Your task to perform on an android device: How do I get to the nearest electronics store? Image 0: 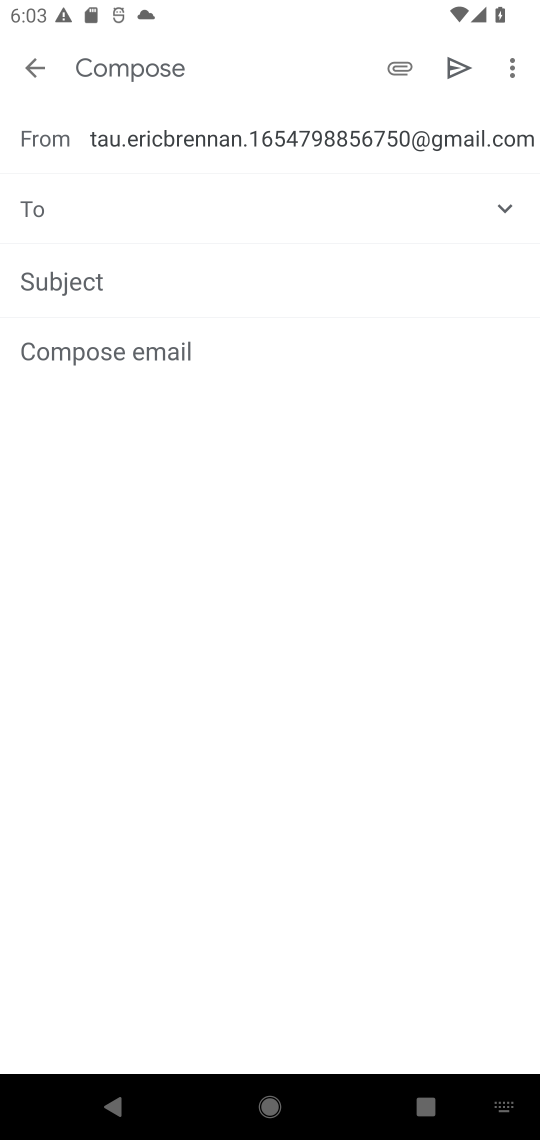
Step 0: press home button
Your task to perform on an android device: How do I get to the nearest electronics store? Image 1: 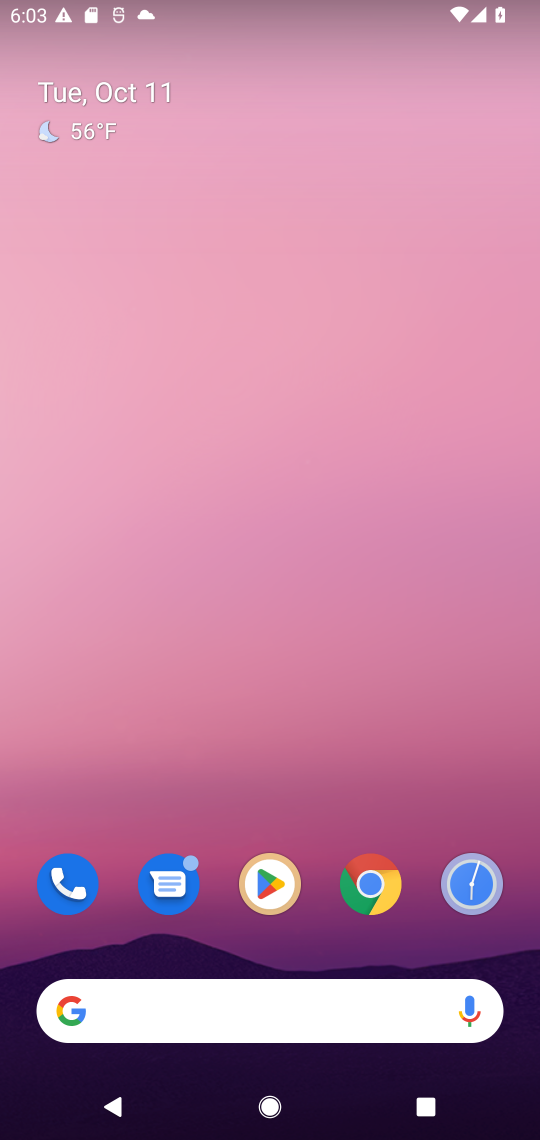
Step 1: drag from (344, 813) to (428, 215)
Your task to perform on an android device: How do I get to the nearest electronics store? Image 2: 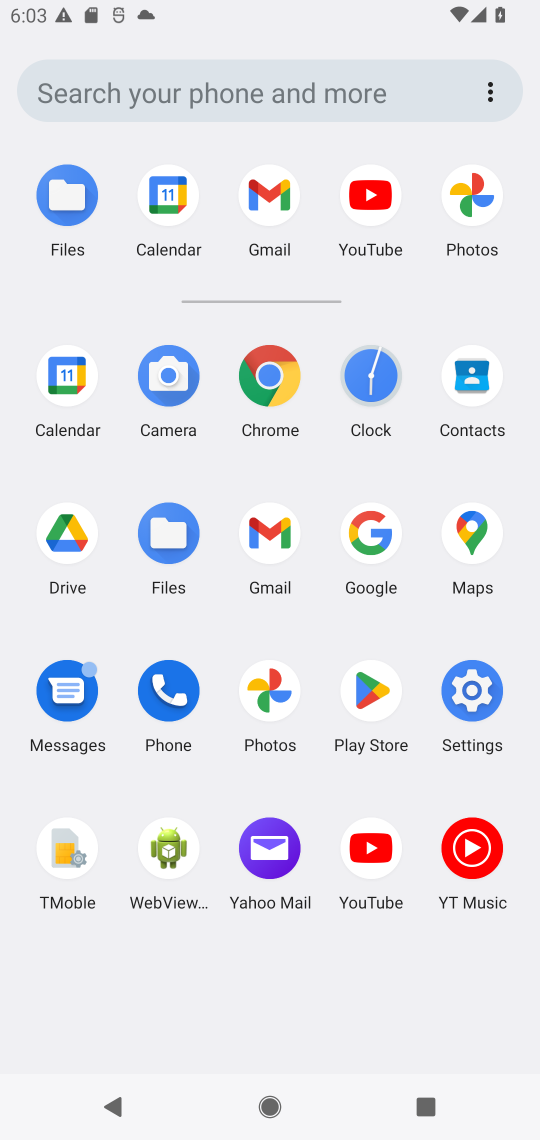
Step 2: click (272, 375)
Your task to perform on an android device: How do I get to the nearest electronics store? Image 3: 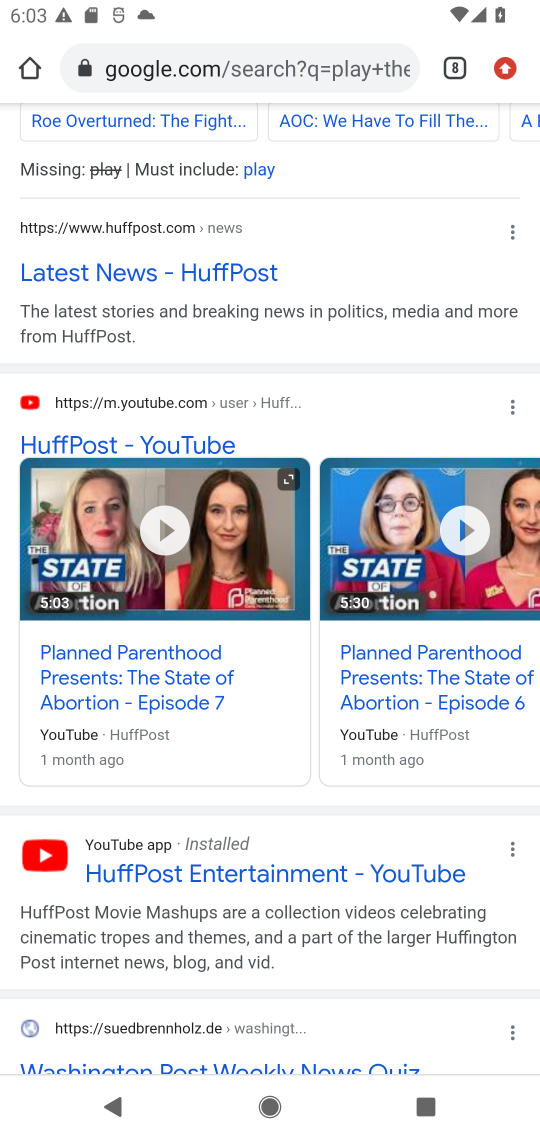
Step 3: drag from (286, 350) to (328, 825)
Your task to perform on an android device: How do I get to the nearest electronics store? Image 4: 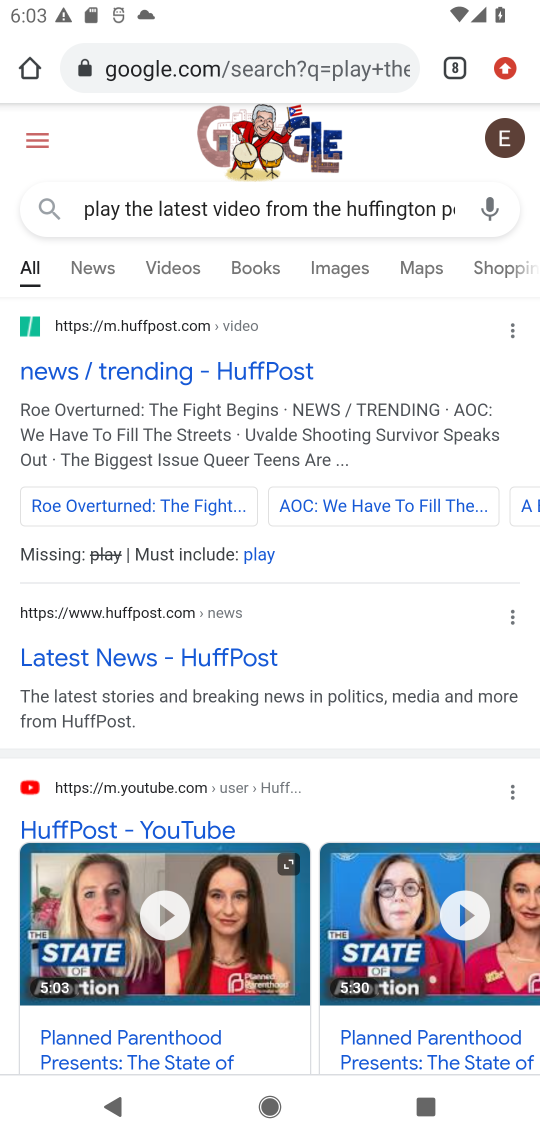
Step 4: click (395, 200)
Your task to perform on an android device: How do I get to the nearest electronics store? Image 5: 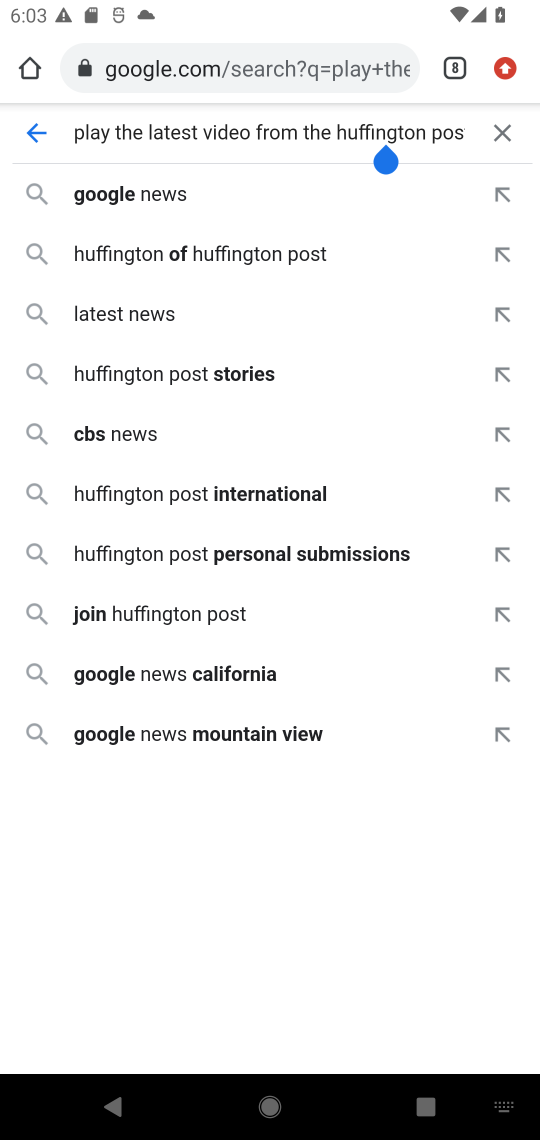
Step 5: click (506, 130)
Your task to perform on an android device: How do I get to the nearest electronics store? Image 6: 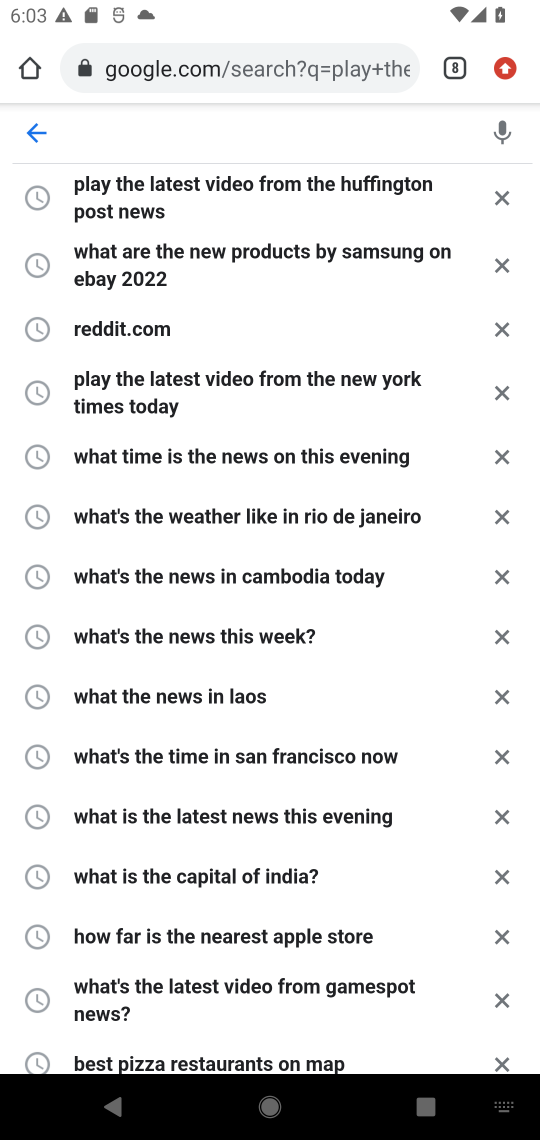
Step 6: type "How do I get to the nearest electronics store?"
Your task to perform on an android device: How do I get to the nearest electronics store? Image 7: 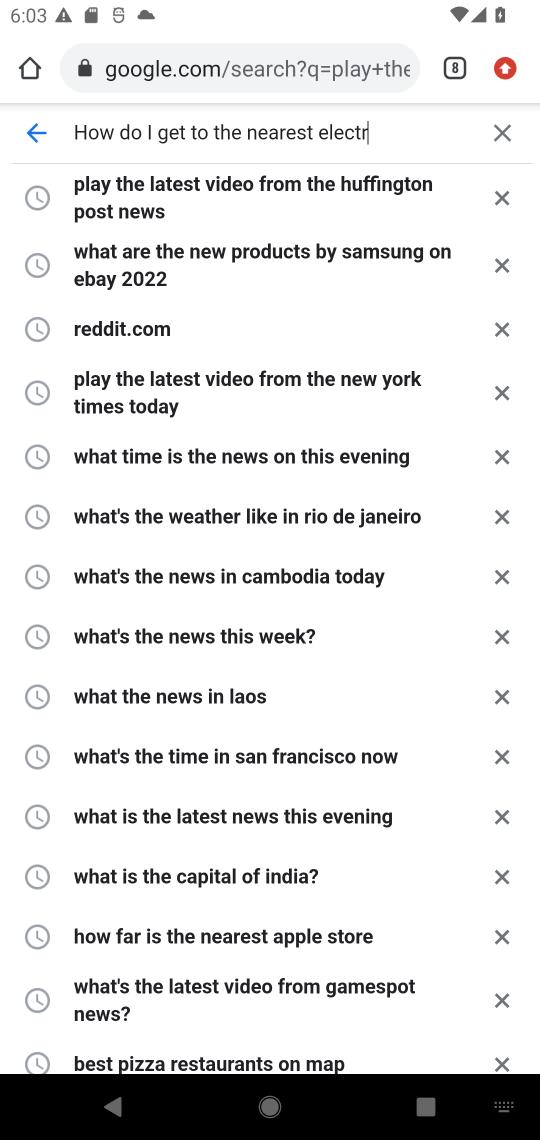
Step 7: type ""
Your task to perform on an android device: How do I get to the nearest electronics store? Image 8: 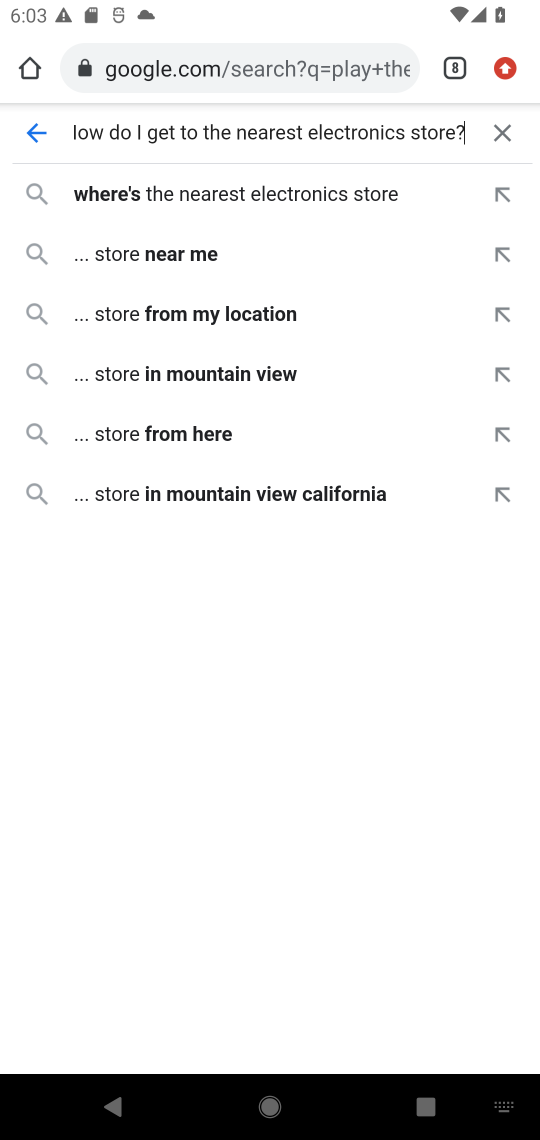
Step 8: click (345, 199)
Your task to perform on an android device: How do I get to the nearest electronics store? Image 9: 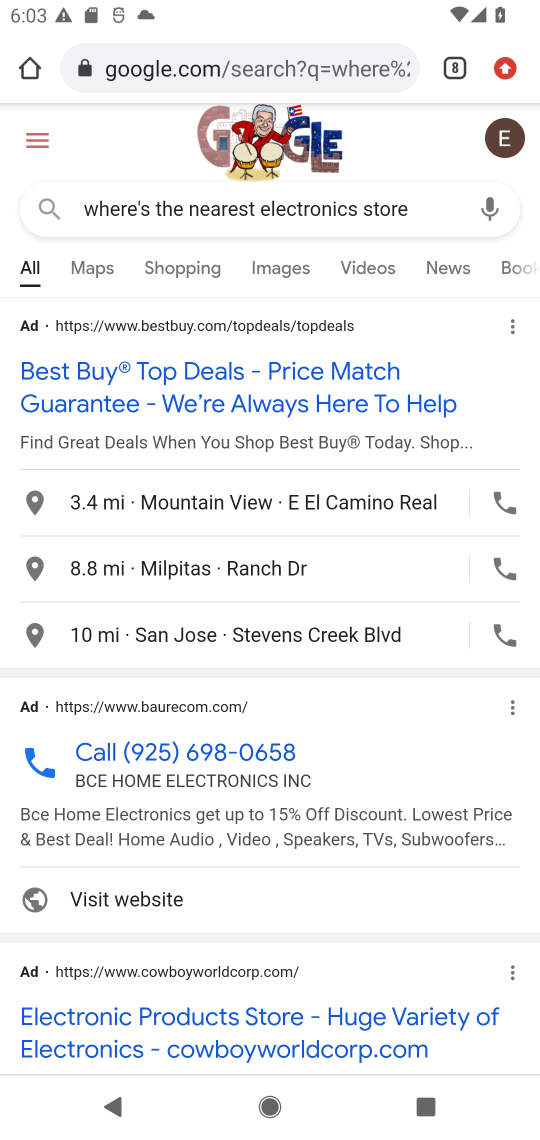
Step 9: task complete